Your task to perform on an android device: open app "Pandora - Music & Podcasts" (install if not already installed) and go to login screen Image 0: 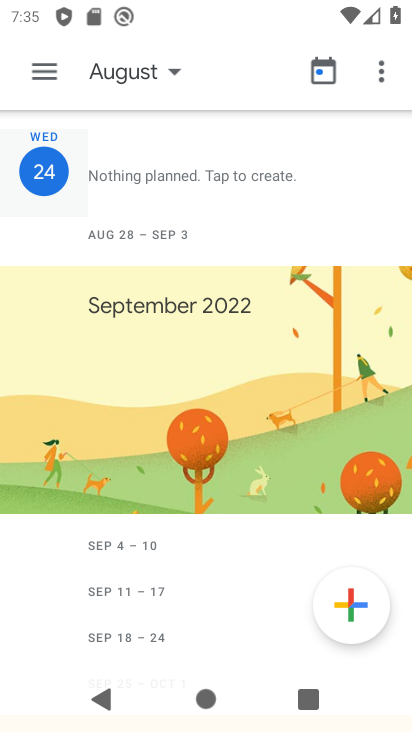
Step 0: press home button
Your task to perform on an android device: open app "Pandora - Music & Podcasts" (install if not already installed) and go to login screen Image 1: 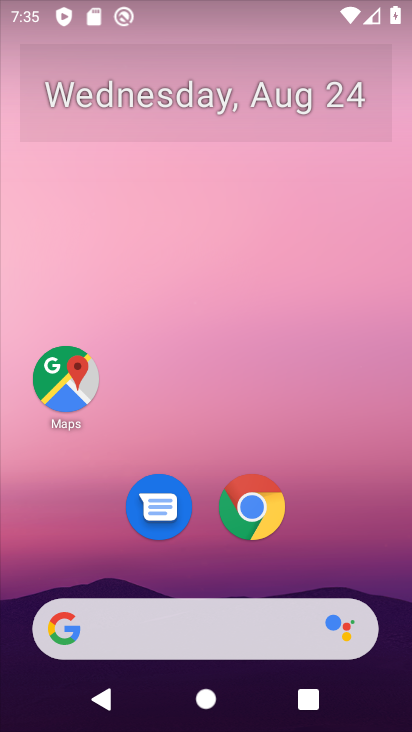
Step 1: drag from (350, 532) to (348, 85)
Your task to perform on an android device: open app "Pandora - Music & Podcasts" (install if not already installed) and go to login screen Image 2: 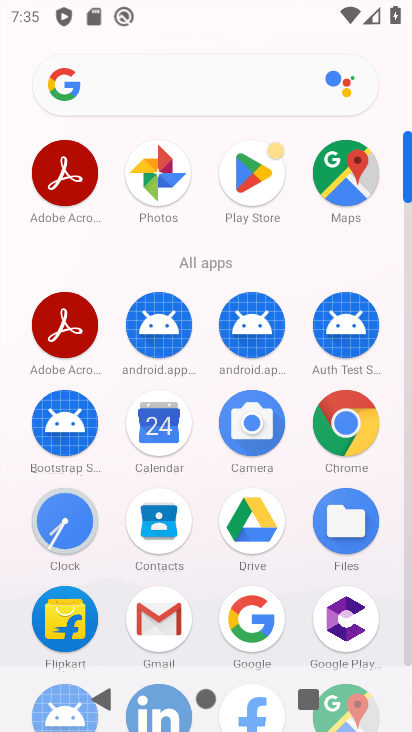
Step 2: click (258, 175)
Your task to perform on an android device: open app "Pandora - Music & Podcasts" (install if not already installed) and go to login screen Image 3: 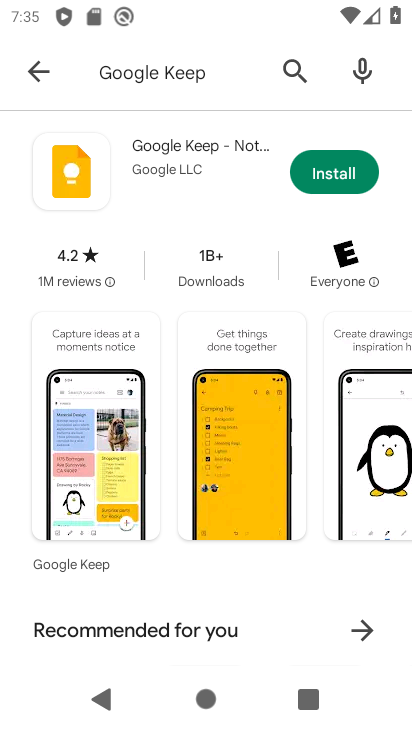
Step 3: press back button
Your task to perform on an android device: open app "Pandora - Music & Podcasts" (install if not already installed) and go to login screen Image 4: 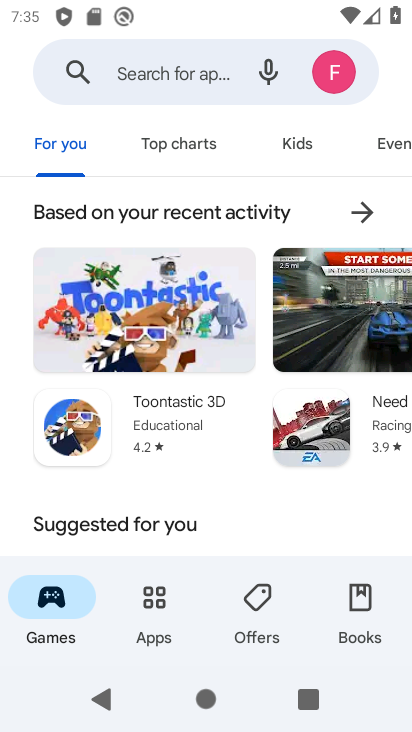
Step 4: click (185, 72)
Your task to perform on an android device: open app "Pandora - Music & Podcasts" (install if not already installed) and go to login screen Image 5: 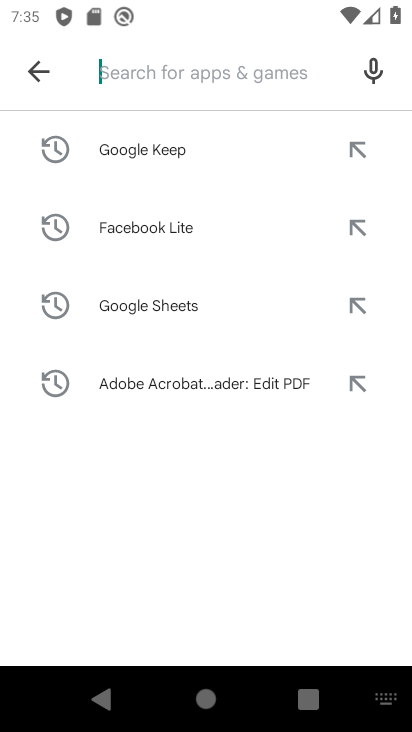
Step 5: type "Pandora - Music & Podcasts"
Your task to perform on an android device: open app "Pandora - Music & Podcasts" (install if not already installed) and go to login screen Image 6: 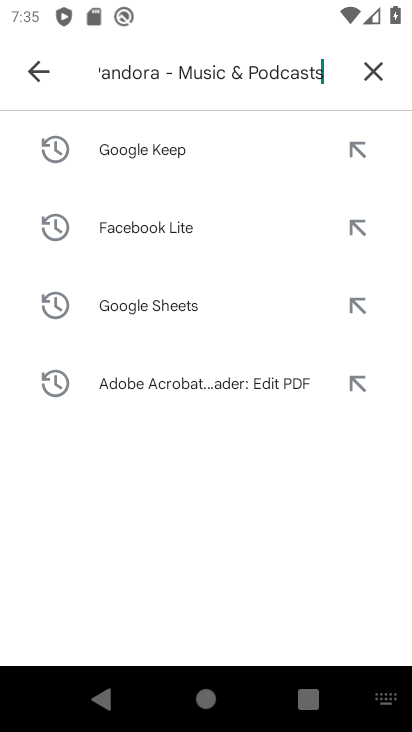
Step 6: press enter
Your task to perform on an android device: open app "Pandora - Music & Podcasts" (install if not already installed) and go to login screen Image 7: 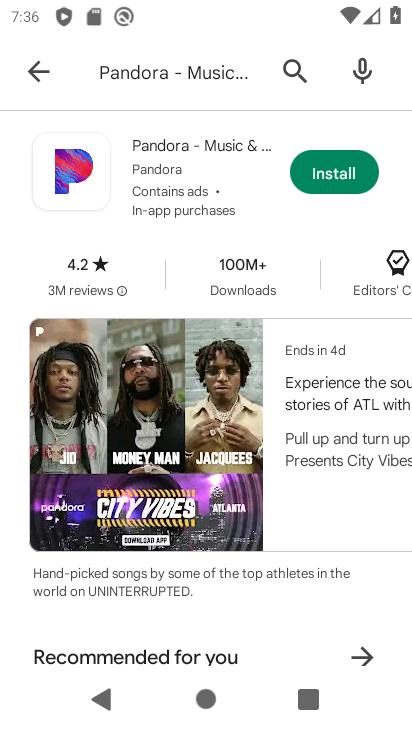
Step 7: click (343, 172)
Your task to perform on an android device: open app "Pandora - Music & Podcasts" (install if not already installed) and go to login screen Image 8: 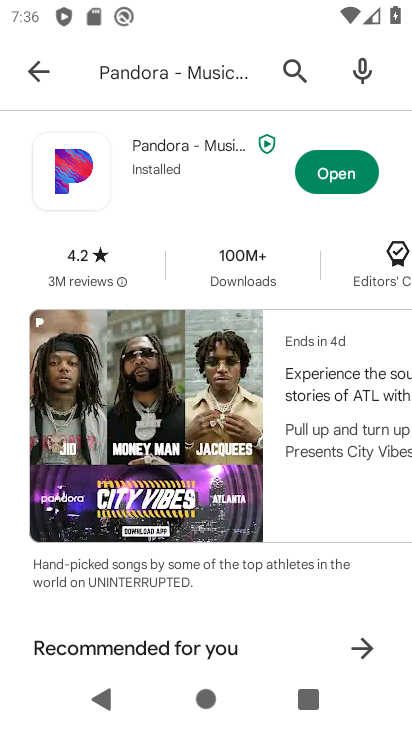
Step 8: click (352, 164)
Your task to perform on an android device: open app "Pandora - Music & Podcasts" (install if not already installed) and go to login screen Image 9: 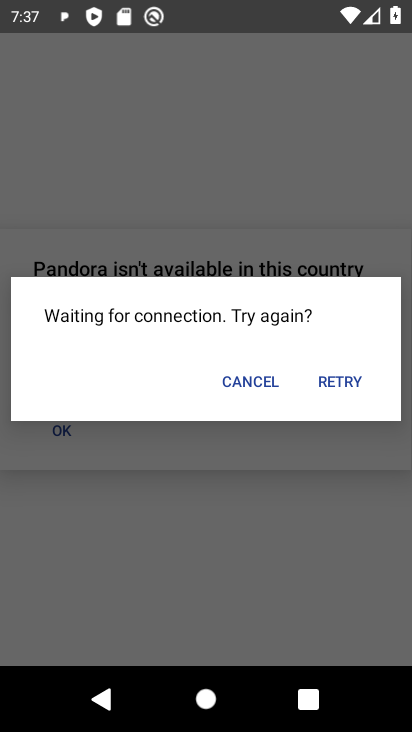
Step 9: task complete